Your task to perform on an android device: open the mobile data screen to see how much data has been used Image 0: 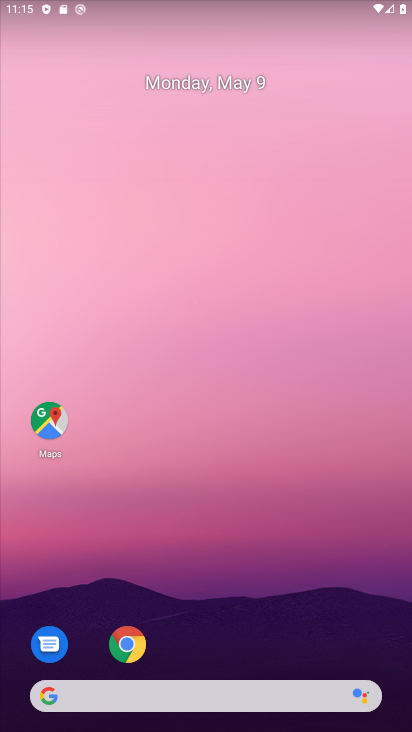
Step 0: drag from (264, 610) to (346, 62)
Your task to perform on an android device: open the mobile data screen to see how much data has been used Image 1: 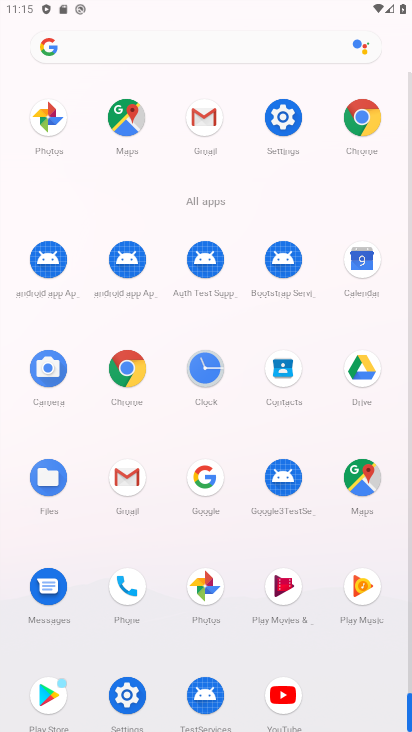
Step 1: click (278, 118)
Your task to perform on an android device: open the mobile data screen to see how much data has been used Image 2: 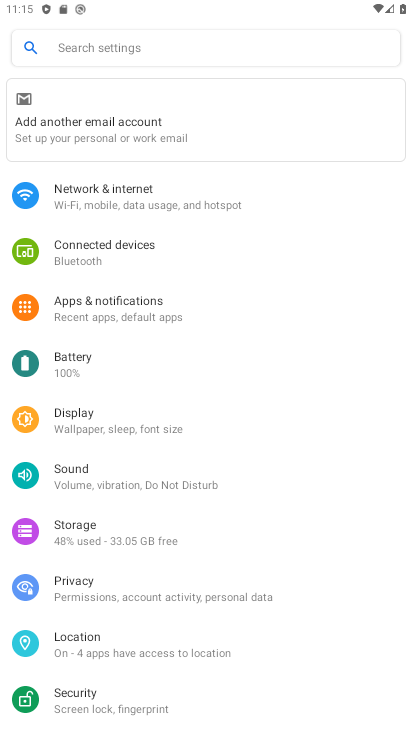
Step 2: click (105, 187)
Your task to perform on an android device: open the mobile data screen to see how much data has been used Image 3: 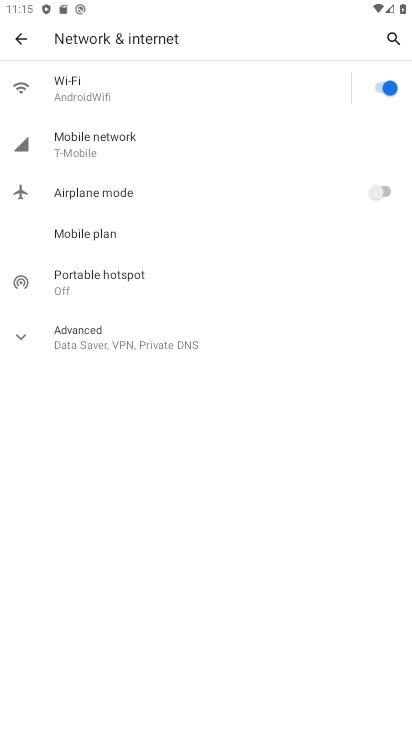
Step 3: click (66, 141)
Your task to perform on an android device: open the mobile data screen to see how much data has been used Image 4: 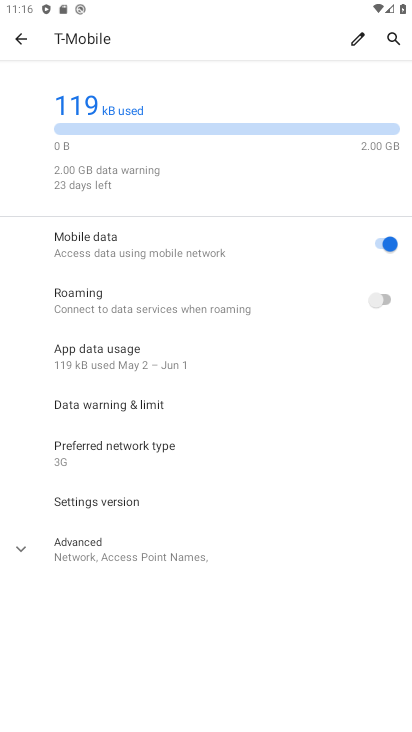
Step 4: task complete